Your task to perform on an android device: set default search engine in the chrome app Image 0: 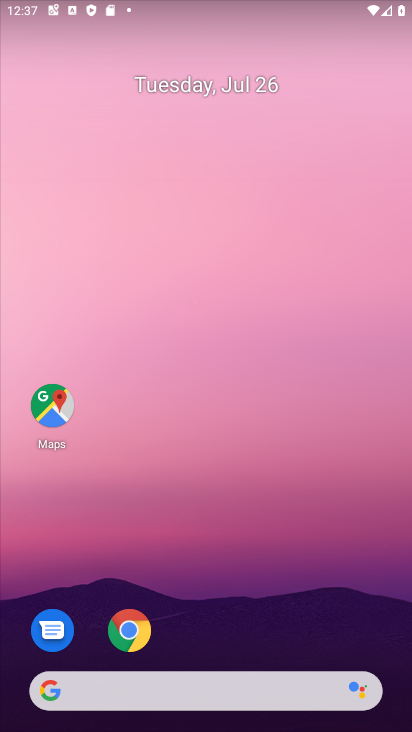
Step 0: click (129, 630)
Your task to perform on an android device: set default search engine in the chrome app Image 1: 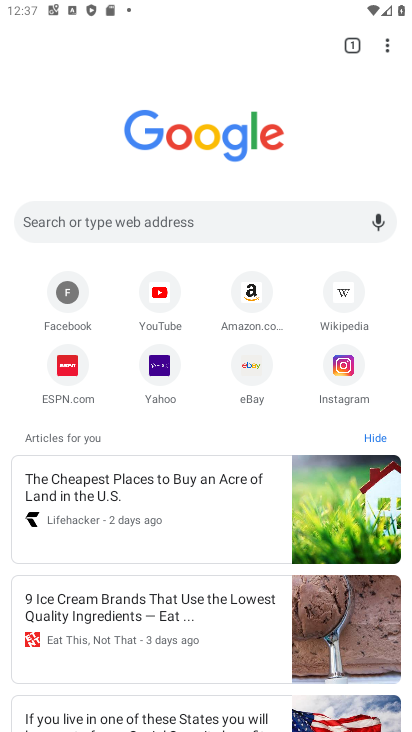
Step 1: click (387, 45)
Your task to perform on an android device: set default search engine in the chrome app Image 2: 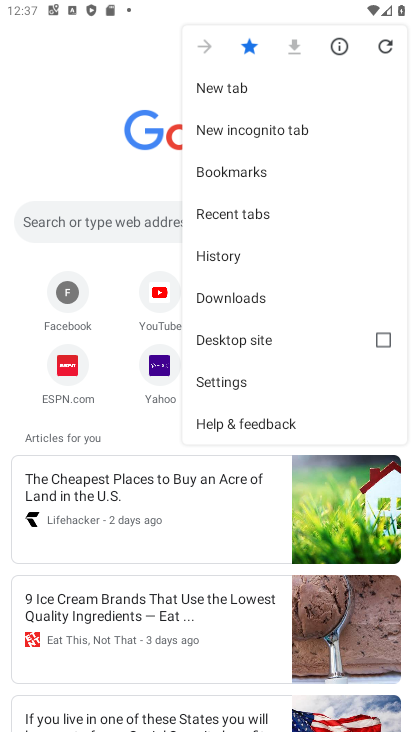
Step 2: click (216, 375)
Your task to perform on an android device: set default search engine in the chrome app Image 3: 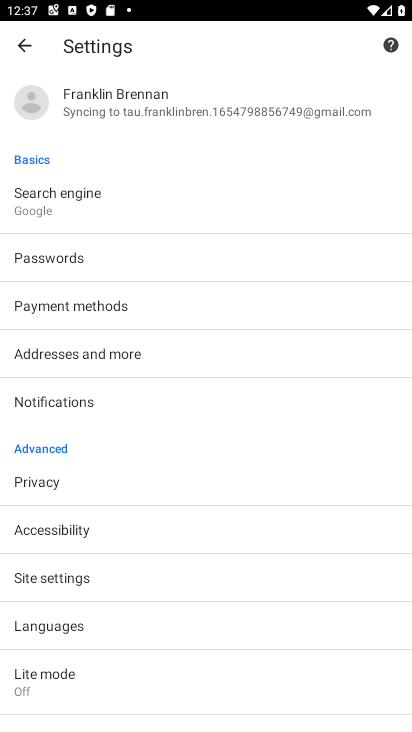
Step 3: click (29, 199)
Your task to perform on an android device: set default search engine in the chrome app Image 4: 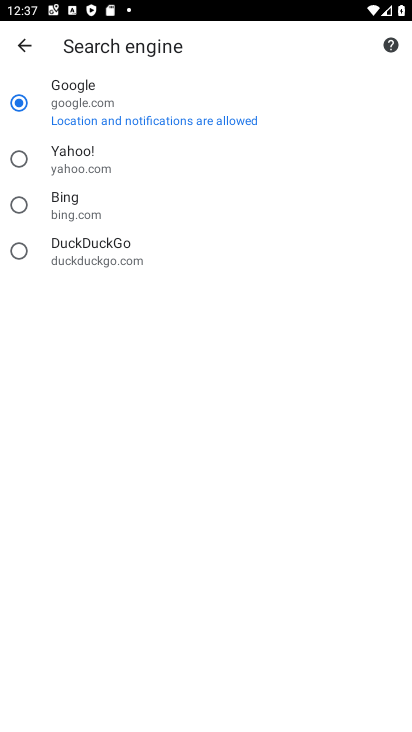
Step 4: click (19, 158)
Your task to perform on an android device: set default search engine in the chrome app Image 5: 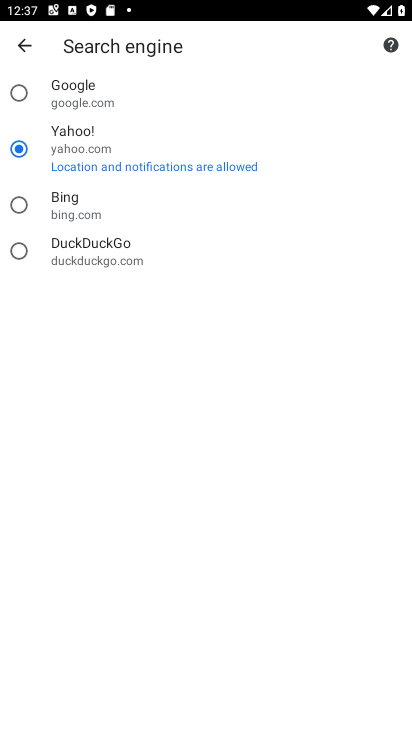
Step 5: task complete